Your task to perform on an android device: Open calendar and show me the third week of next month Image 0: 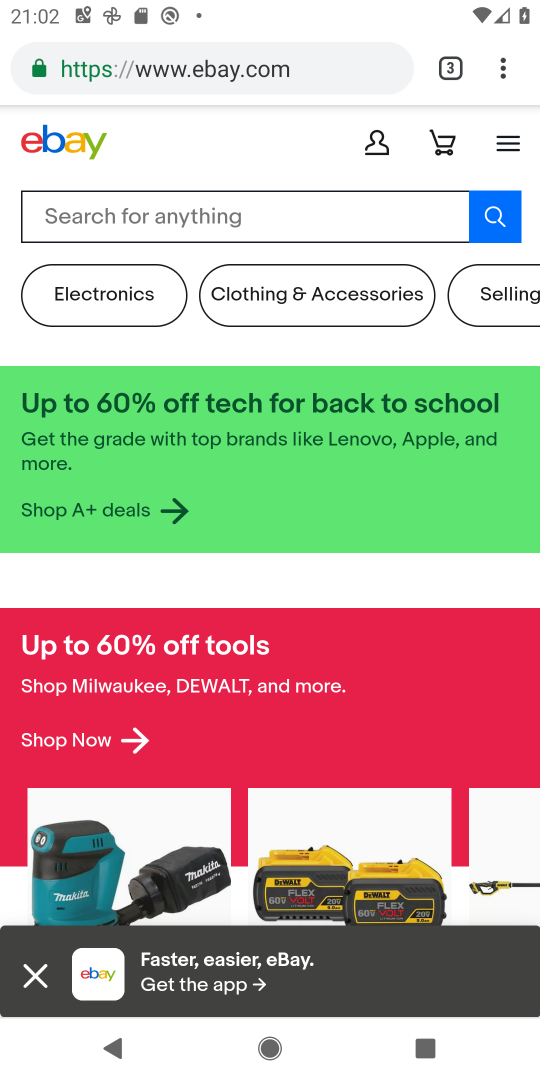
Step 0: press home button
Your task to perform on an android device: Open calendar and show me the third week of next month Image 1: 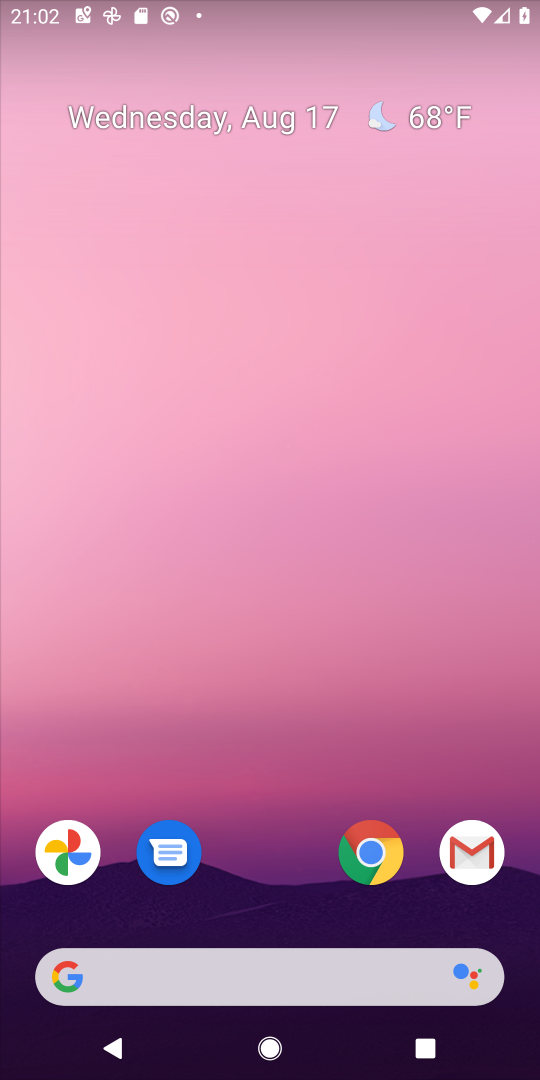
Step 1: drag from (265, 858) to (293, 205)
Your task to perform on an android device: Open calendar and show me the third week of next month Image 2: 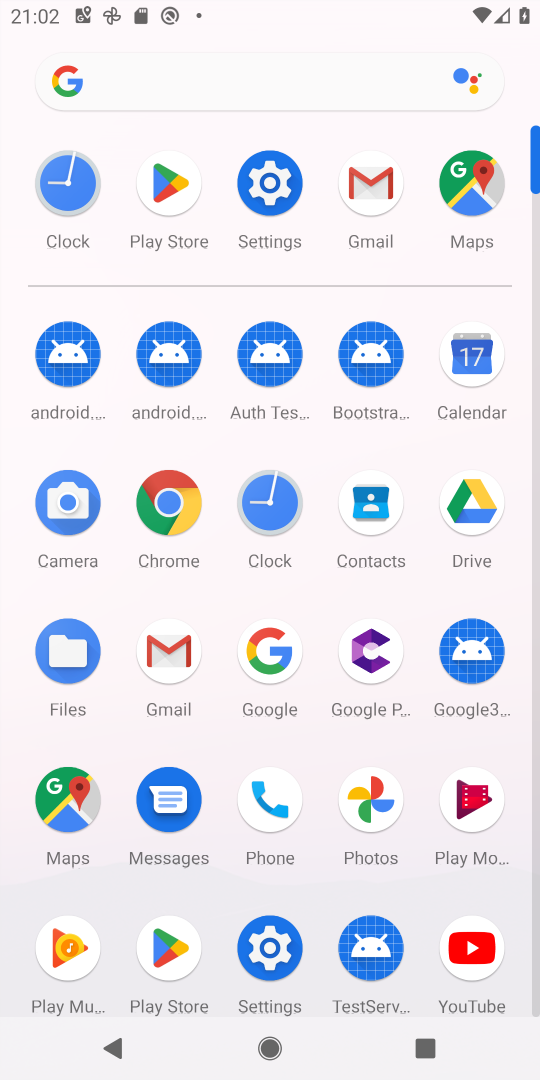
Step 2: click (480, 359)
Your task to perform on an android device: Open calendar and show me the third week of next month Image 3: 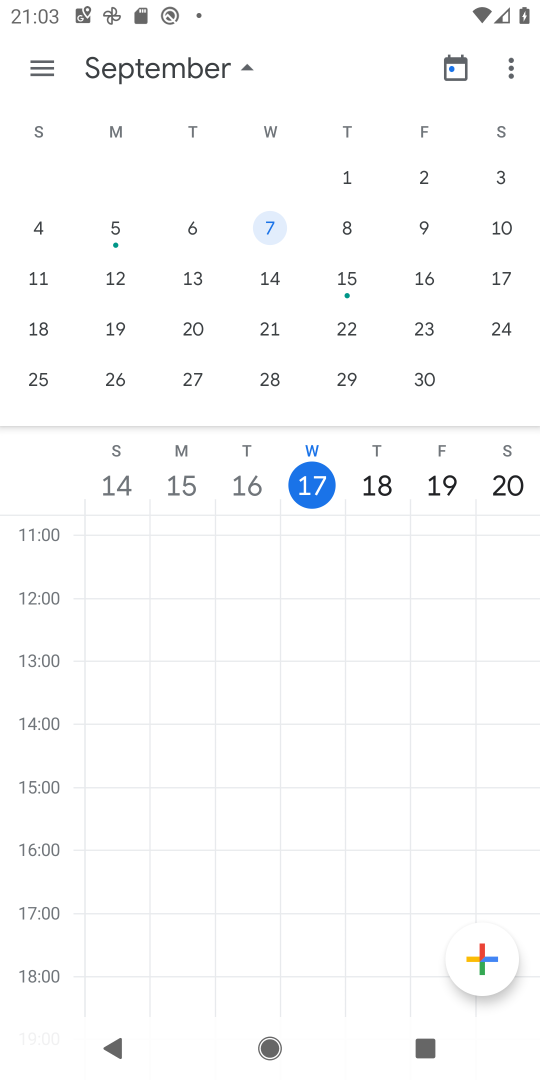
Step 3: click (340, 175)
Your task to perform on an android device: Open calendar and show me the third week of next month Image 4: 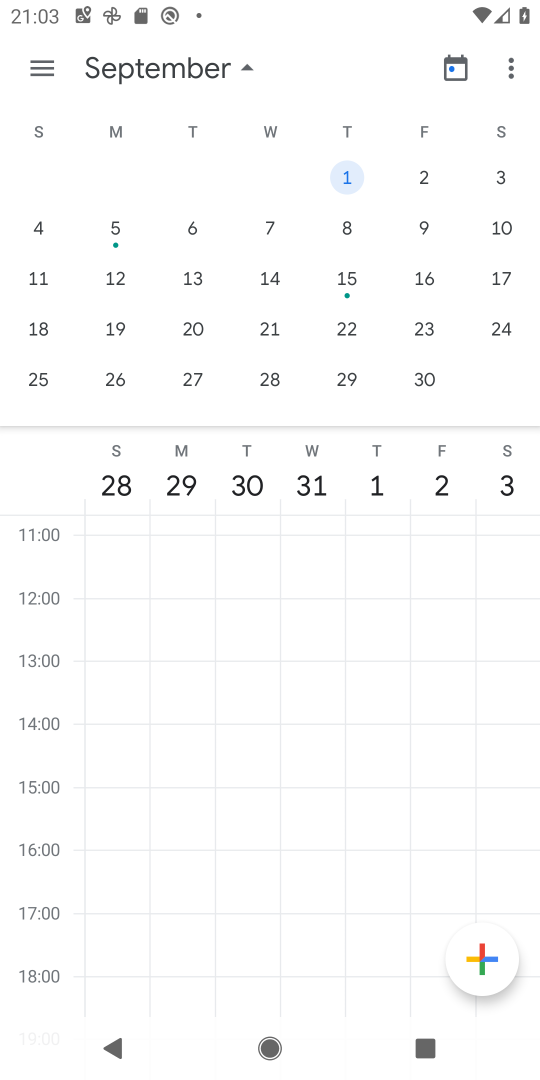
Step 4: task complete